Your task to perform on an android device: open app "HBO Max: Stream TV & Movies" (install if not already installed) and enter user name: "faring@outlook.com" and password: "appropriately" Image 0: 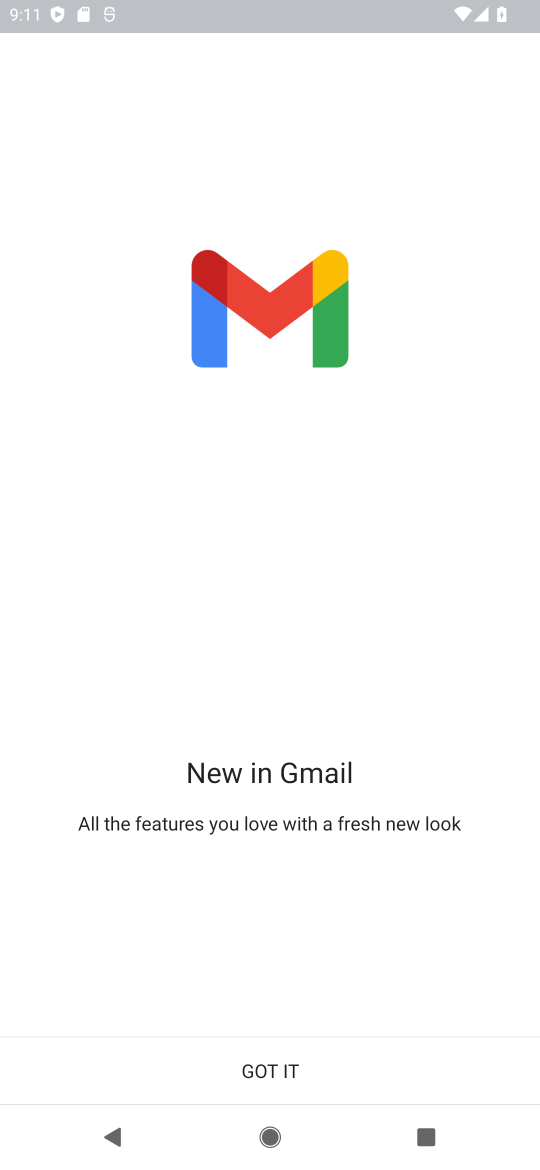
Step 0: press back button
Your task to perform on an android device: open app "HBO Max: Stream TV & Movies" (install if not already installed) and enter user name: "faring@outlook.com" and password: "appropriately" Image 1: 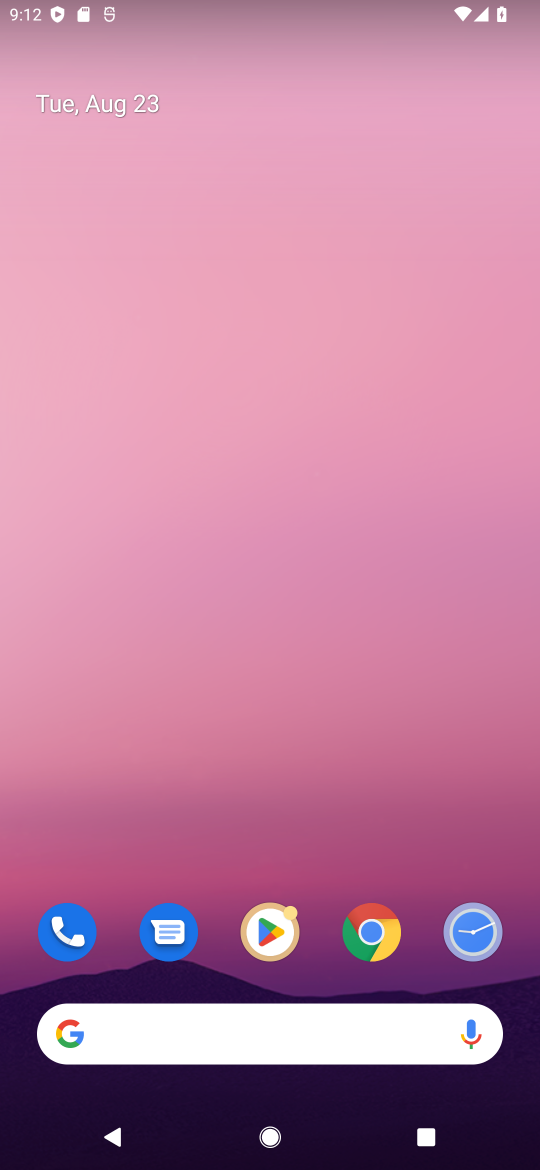
Step 1: click (283, 936)
Your task to perform on an android device: open app "HBO Max: Stream TV & Movies" (install if not already installed) and enter user name: "faring@outlook.com" and password: "appropriately" Image 2: 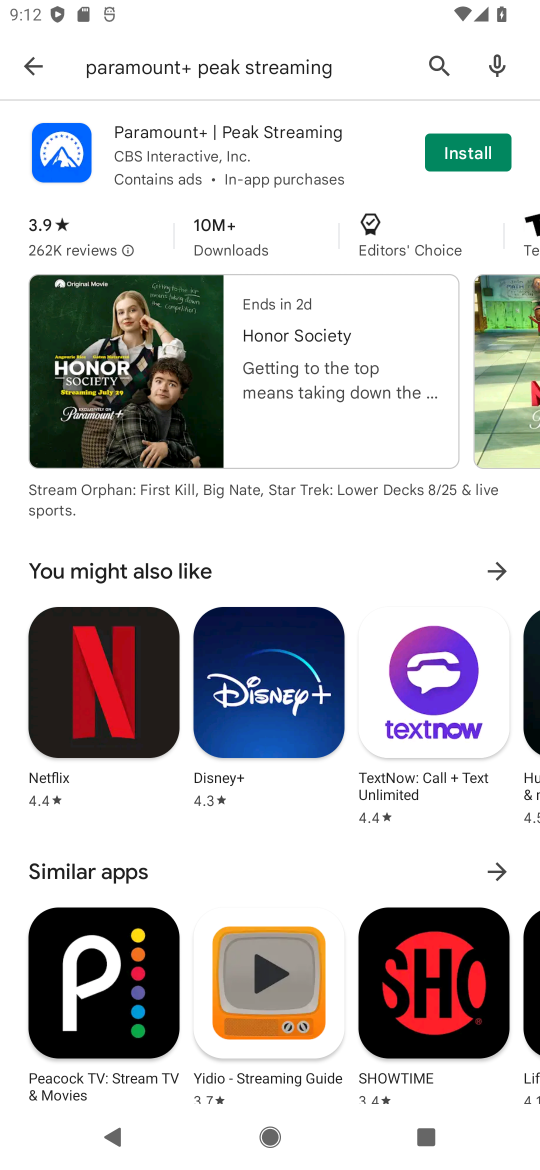
Step 2: click (450, 66)
Your task to perform on an android device: open app "HBO Max: Stream TV & Movies" (install if not already installed) and enter user name: "faring@outlook.com" and password: "appropriately" Image 3: 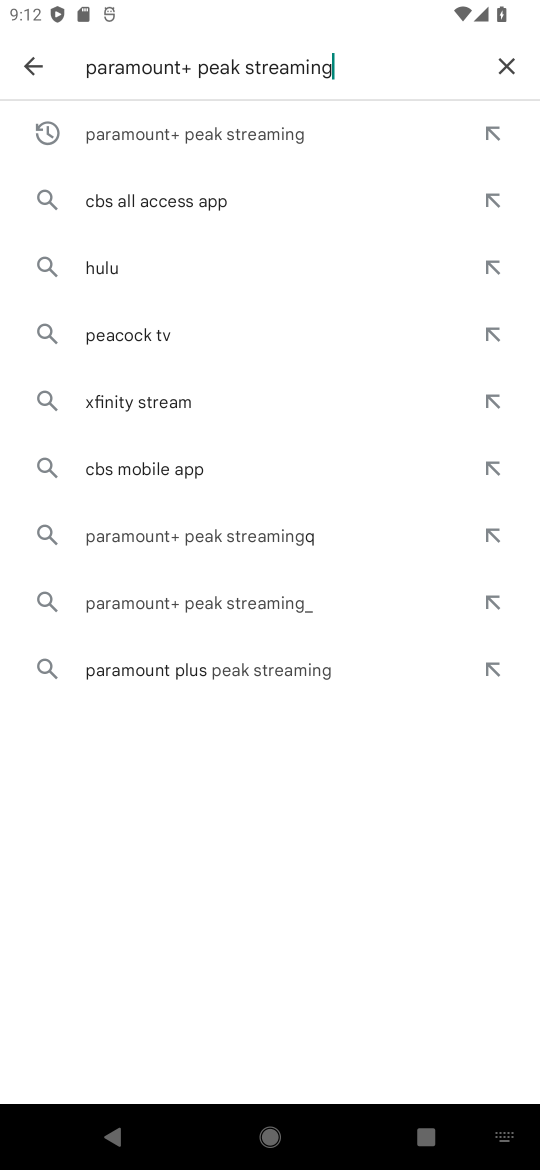
Step 3: click (505, 58)
Your task to perform on an android device: open app "HBO Max: Stream TV & Movies" (install if not already installed) and enter user name: "faring@outlook.com" and password: "appropriately" Image 4: 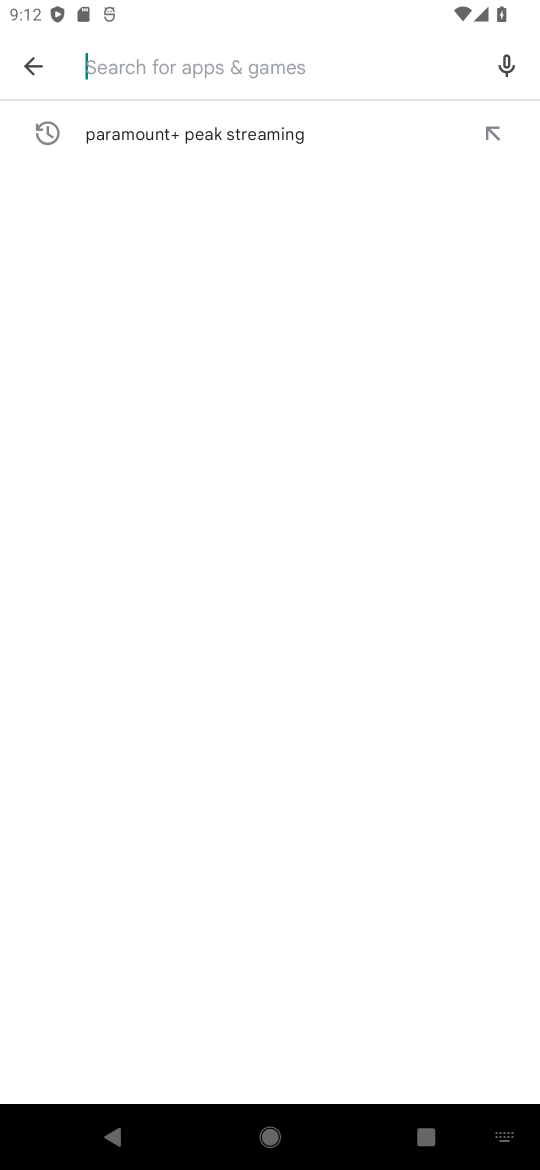
Step 4: click (223, 66)
Your task to perform on an android device: open app "HBO Max: Stream TV & Movies" (install if not already installed) and enter user name: "faring@outlook.com" and password: "appropriately" Image 5: 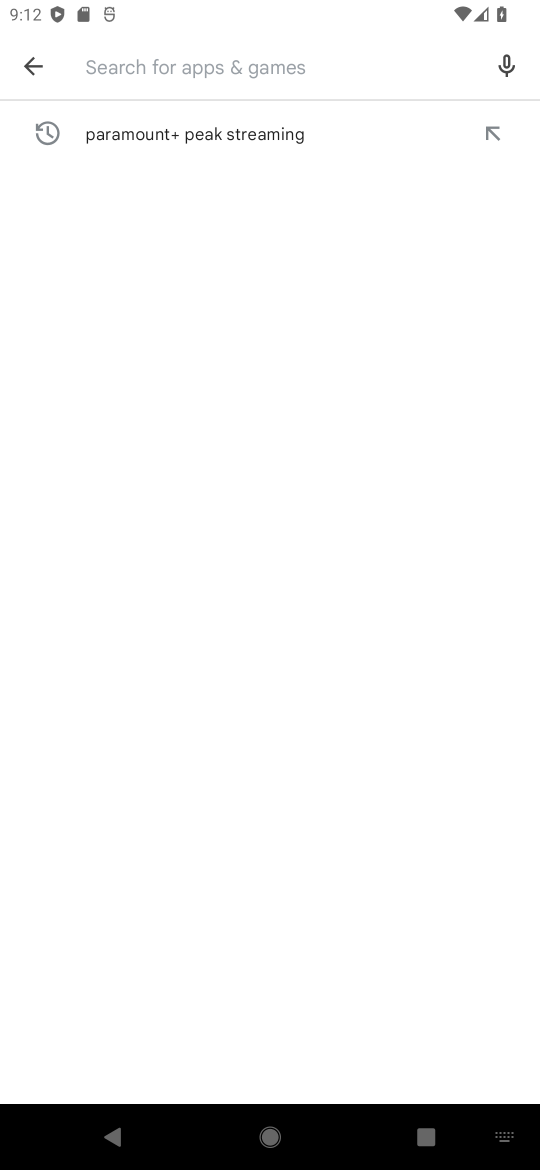
Step 5: type "hbo"
Your task to perform on an android device: open app "HBO Max: Stream TV & Movies" (install if not already installed) and enter user name: "faring@outlook.com" and password: "appropriately" Image 6: 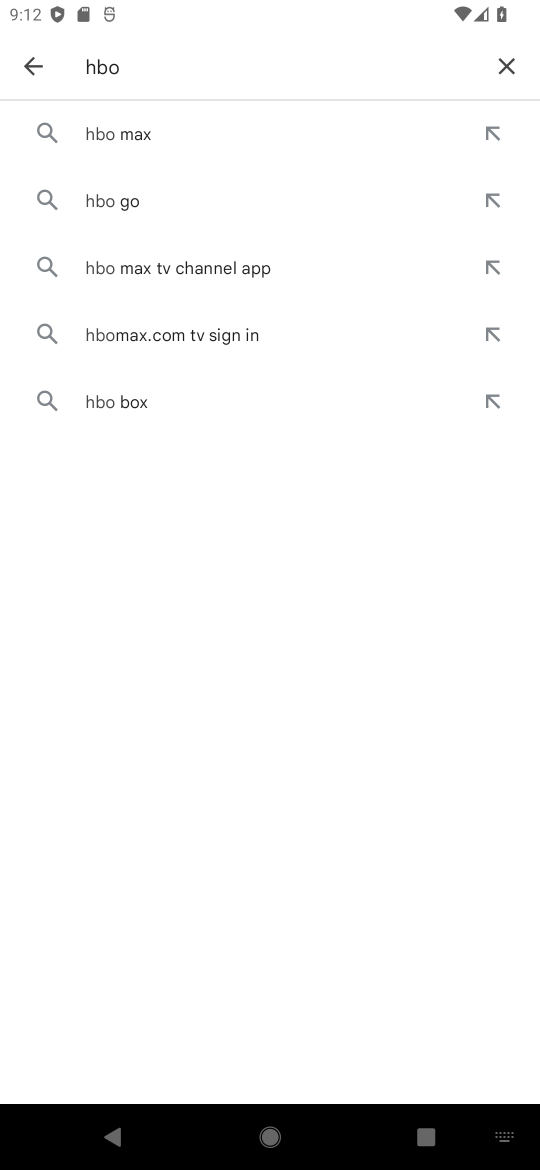
Step 6: click (165, 131)
Your task to perform on an android device: open app "HBO Max: Stream TV & Movies" (install if not already installed) and enter user name: "faring@outlook.com" and password: "appropriately" Image 7: 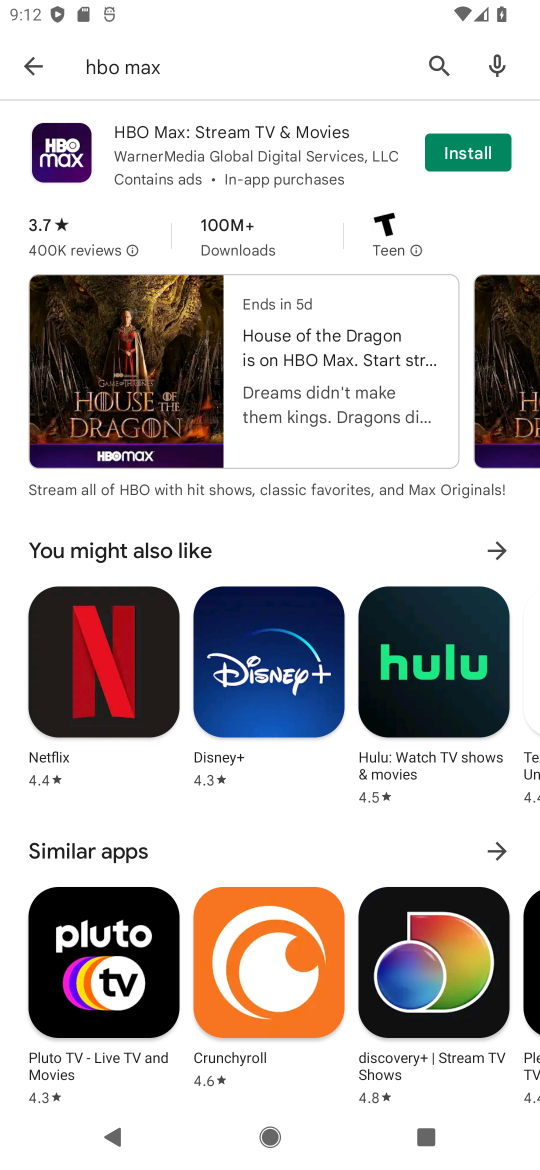
Step 7: click (482, 149)
Your task to perform on an android device: open app "HBO Max: Stream TV & Movies" (install if not already installed) and enter user name: "faring@outlook.com" and password: "appropriately" Image 8: 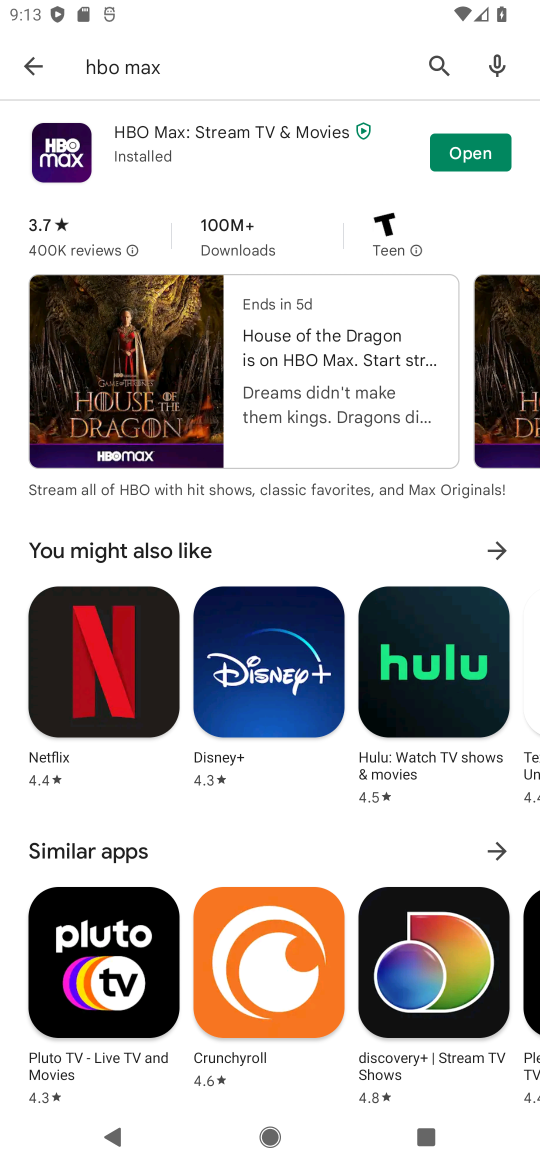
Step 8: click (469, 155)
Your task to perform on an android device: open app "HBO Max: Stream TV & Movies" (install if not already installed) and enter user name: "faring@outlook.com" and password: "appropriately" Image 9: 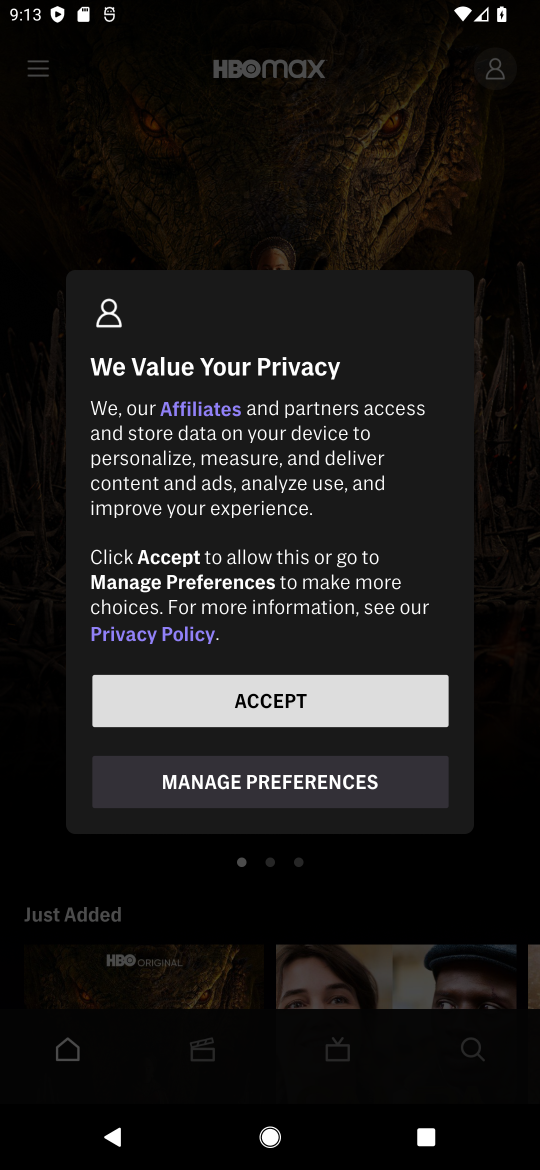
Step 9: click (255, 703)
Your task to perform on an android device: open app "HBO Max: Stream TV & Movies" (install if not already installed) and enter user name: "faring@outlook.com" and password: "appropriately" Image 10: 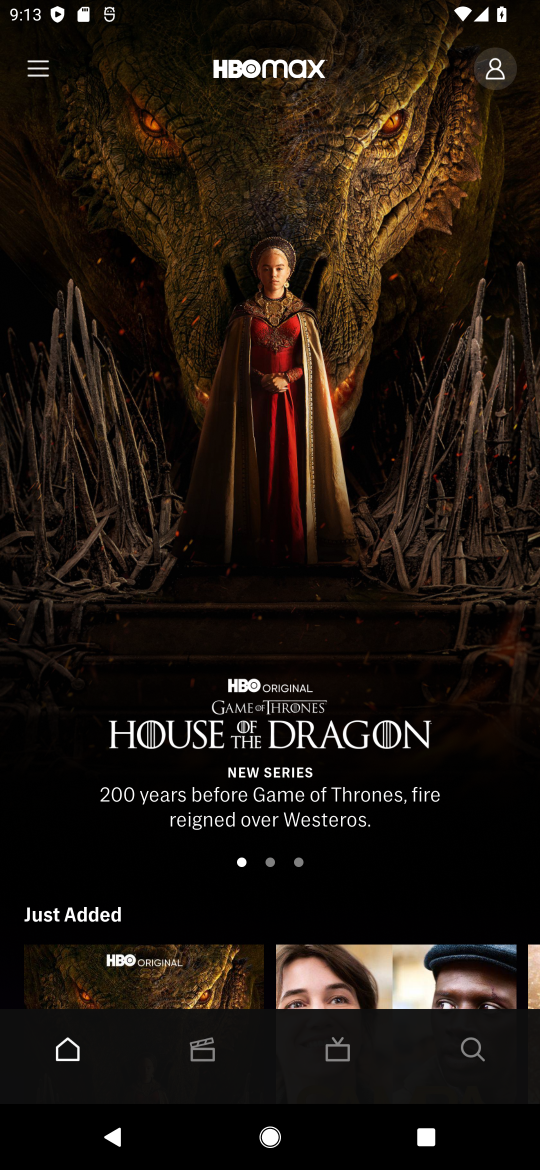
Step 10: click (498, 75)
Your task to perform on an android device: open app "HBO Max: Stream TV & Movies" (install if not already installed) and enter user name: "faring@outlook.com" and password: "appropriately" Image 11: 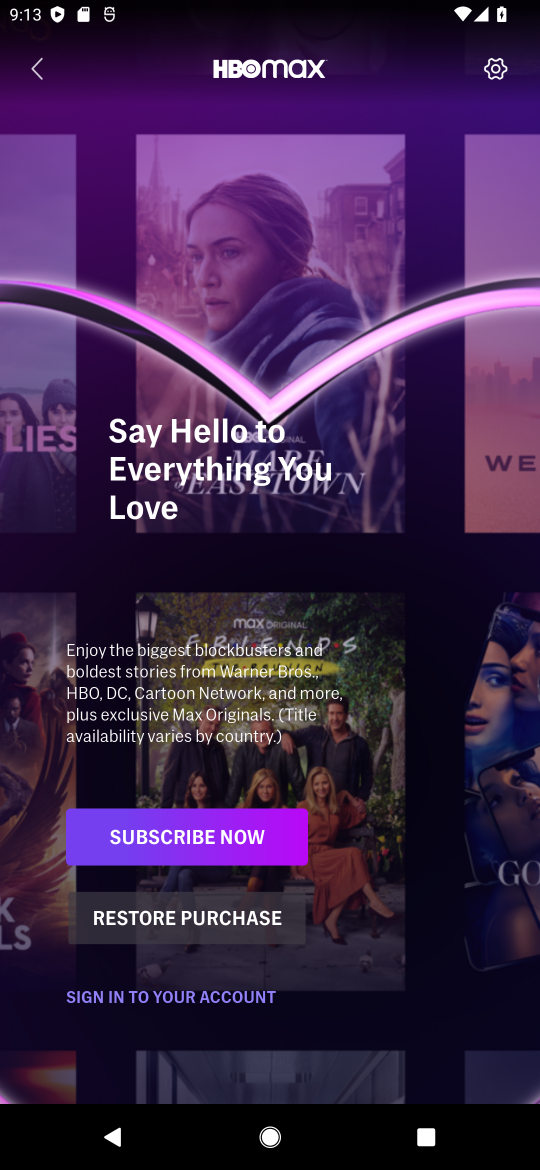
Step 11: click (171, 988)
Your task to perform on an android device: open app "HBO Max: Stream TV & Movies" (install if not already installed) and enter user name: "faring@outlook.com" and password: "appropriately" Image 12: 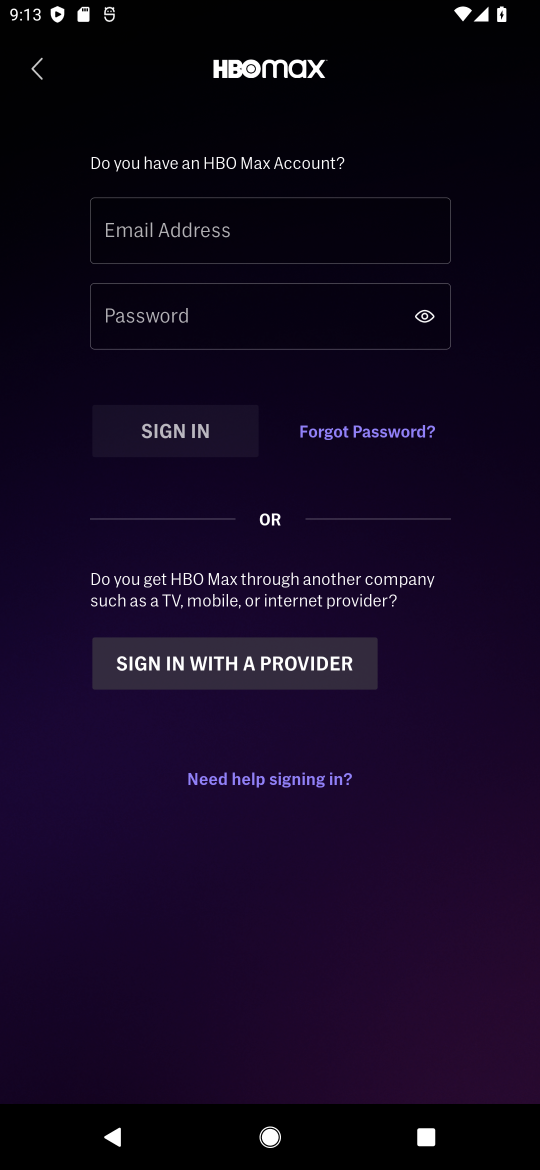
Step 12: click (216, 234)
Your task to perform on an android device: open app "HBO Max: Stream TV & Movies" (install if not already installed) and enter user name: "faring@outlook.com" and password: "appropriately" Image 13: 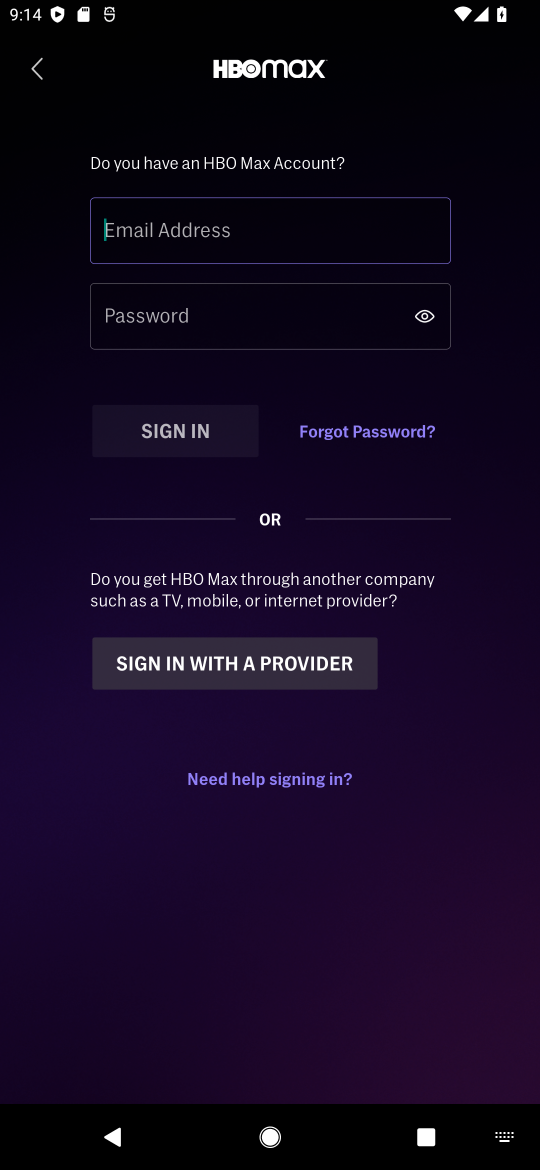
Step 13: type "faring@outlook.com"
Your task to perform on an android device: open app "HBO Max: Stream TV & Movies" (install if not already installed) and enter user name: "faring@outlook.com" and password: "appropriately" Image 14: 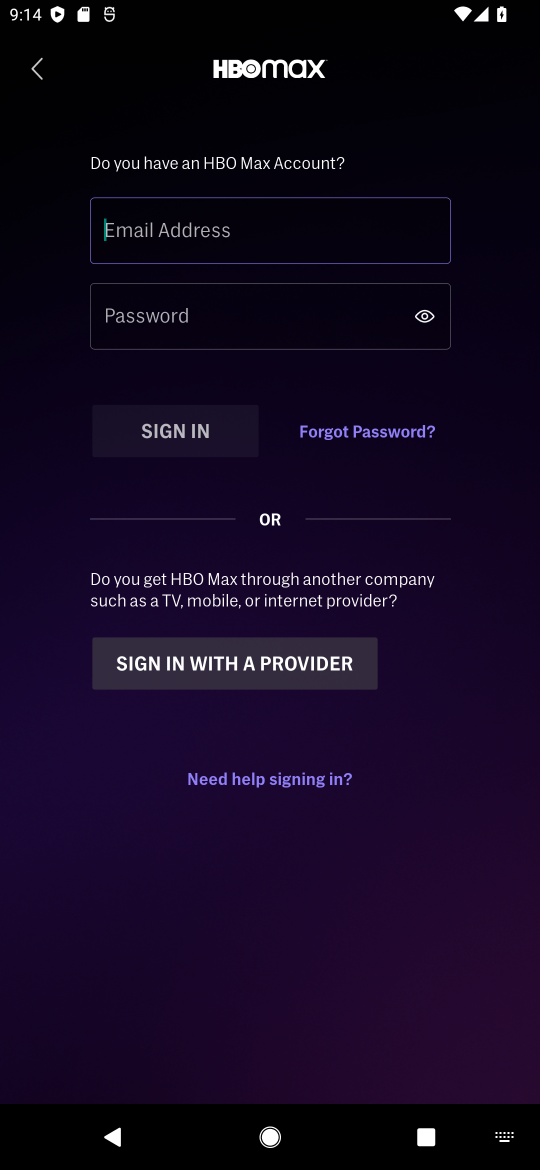
Step 14: click (163, 1002)
Your task to perform on an android device: open app "HBO Max: Stream TV & Movies" (install if not already installed) and enter user name: "faring@outlook.com" and password: "appropriately" Image 15: 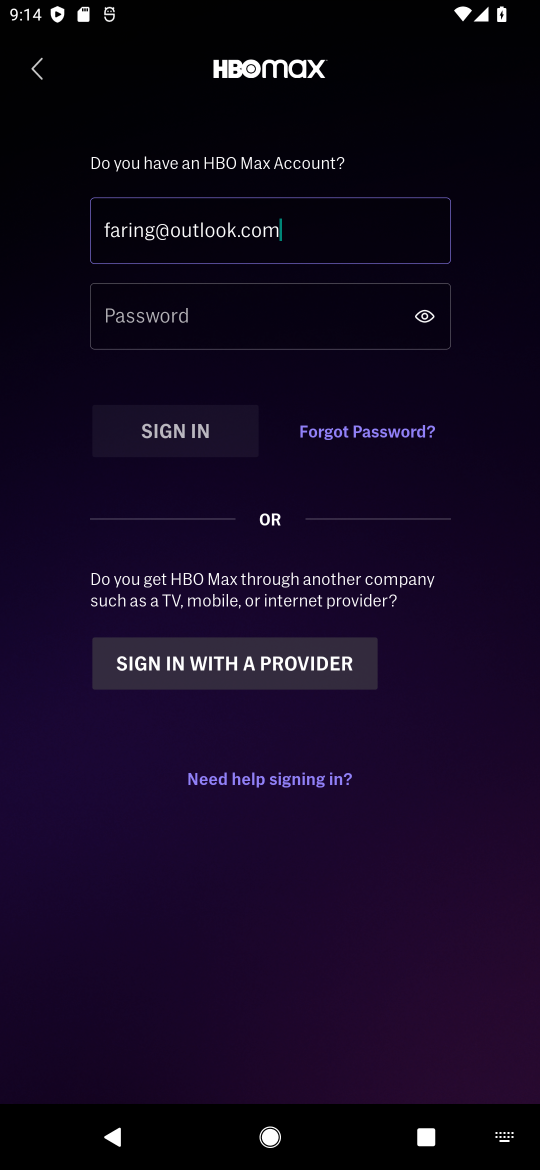
Step 15: click (199, 323)
Your task to perform on an android device: open app "HBO Max: Stream TV & Movies" (install if not already installed) and enter user name: "faring@outlook.com" and password: "appropriately" Image 16: 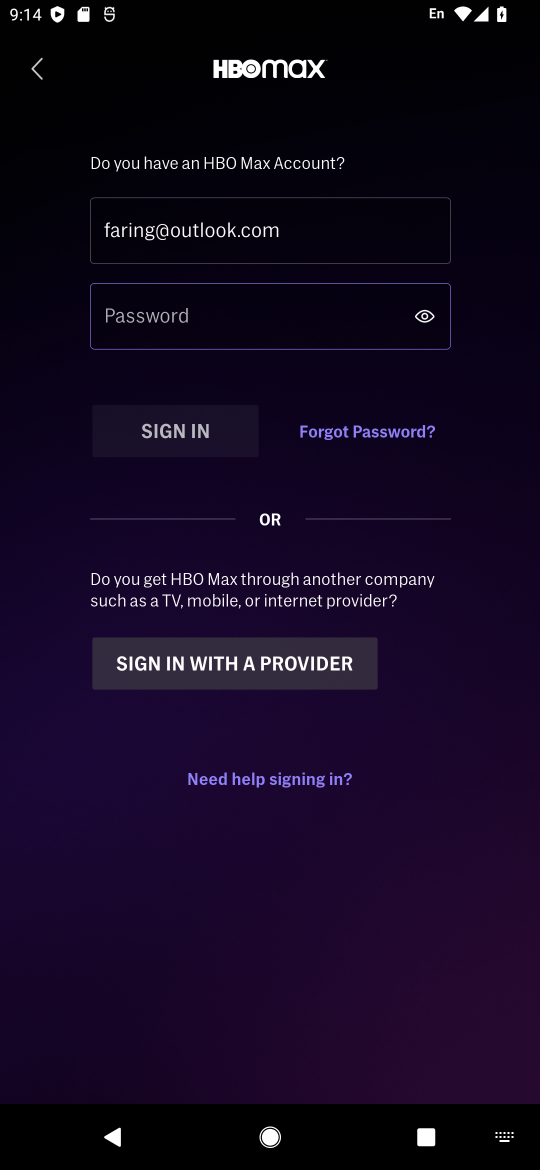
Step 16: type "appropriately"
Your task to perform on an android device: open app "HBO Max: Stream TV & Movies" (install if not already installed) and enter user name: "faring@outlook.com" and password: "appropriately" Image 17: 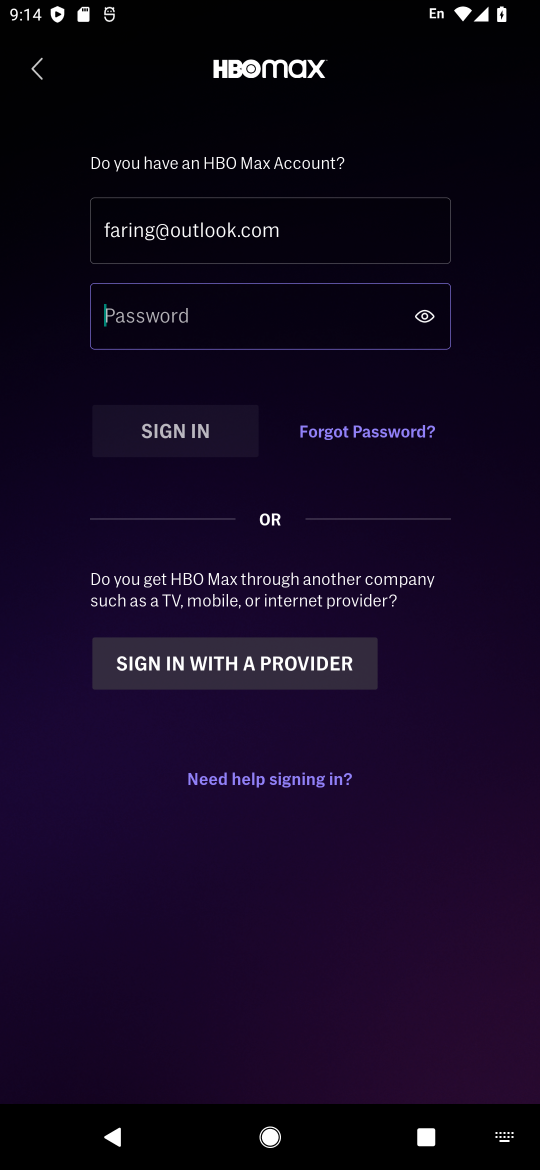
Step 17: click (252, 971)
Your task to perform on an android device: open app "HBO Max: Stream TV & Movies" (install if not already installed) and enter user name: "faring@outlook.com" and password: "appropriately" Image 18: 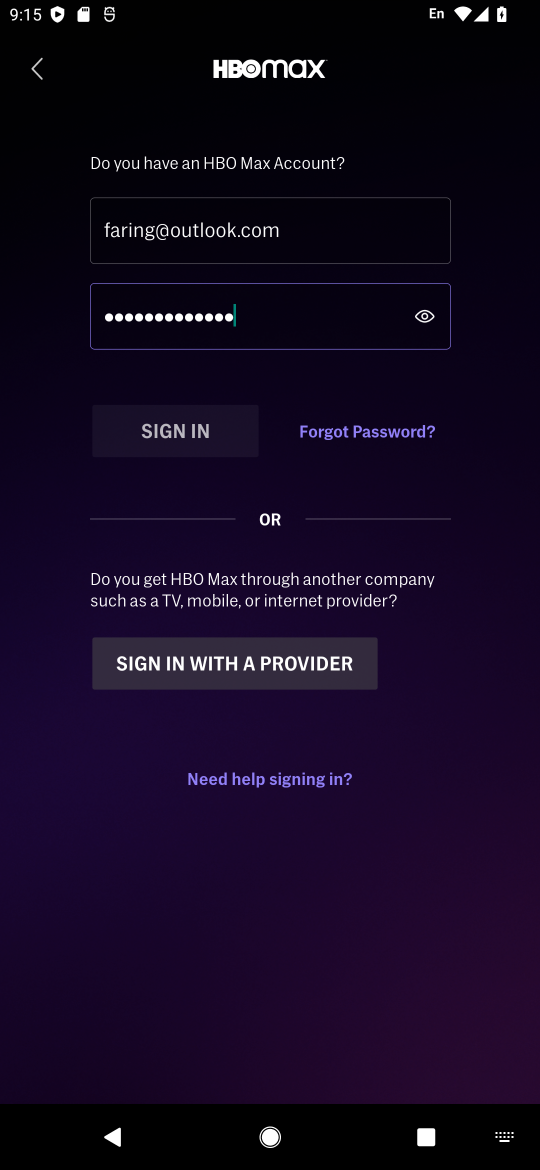
Step 18: task complete